Your task to perform on an android device: check android version Image 0: 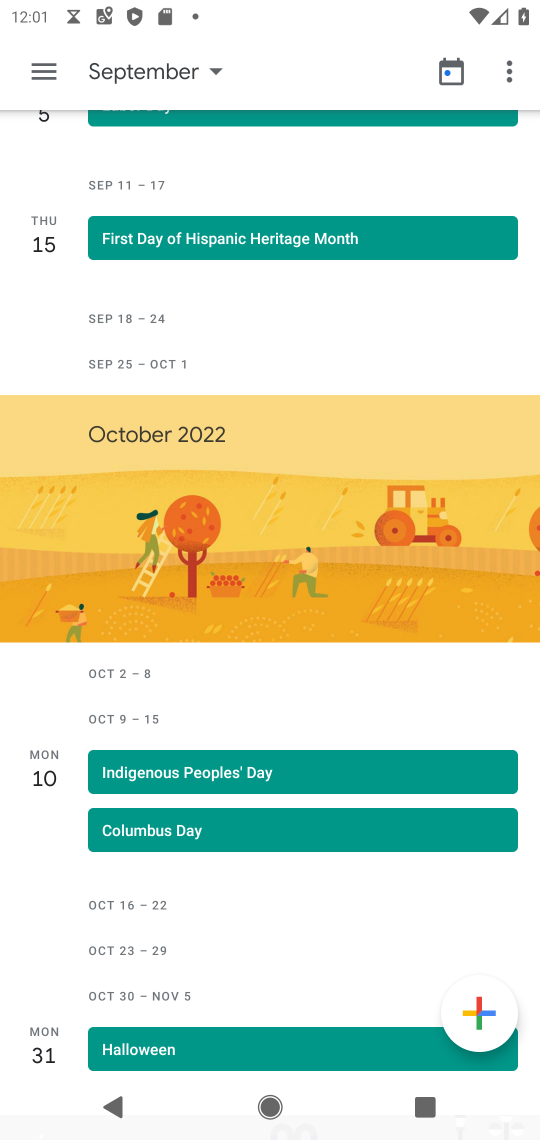
Step 0: press home button
Your task to perform on an android device: check android version Image 1: 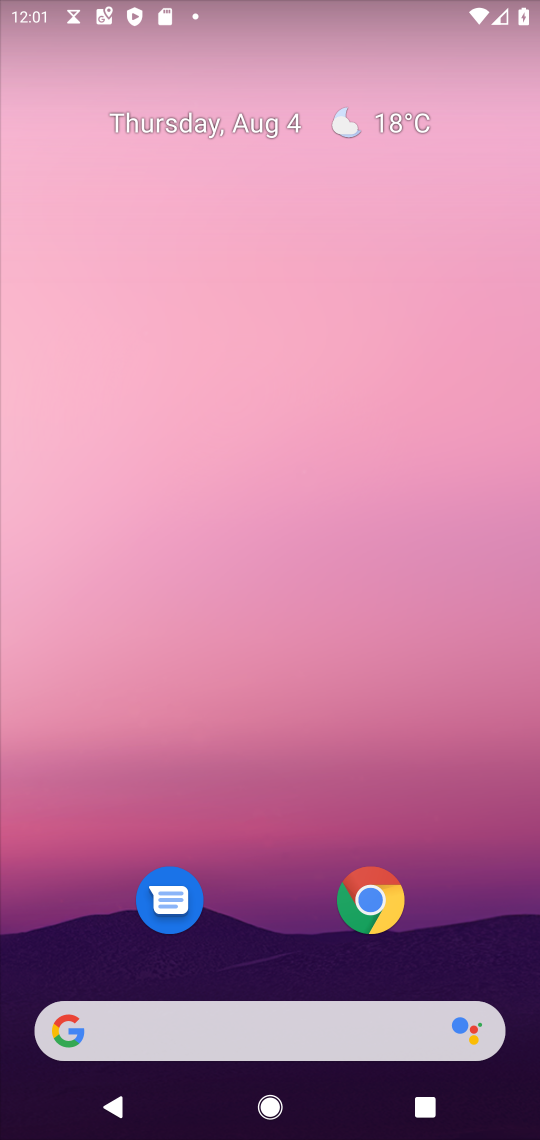
Step 1: drag from (247, 809) to (530, 153)
Your task to perform on an android device: check android version Image 2: 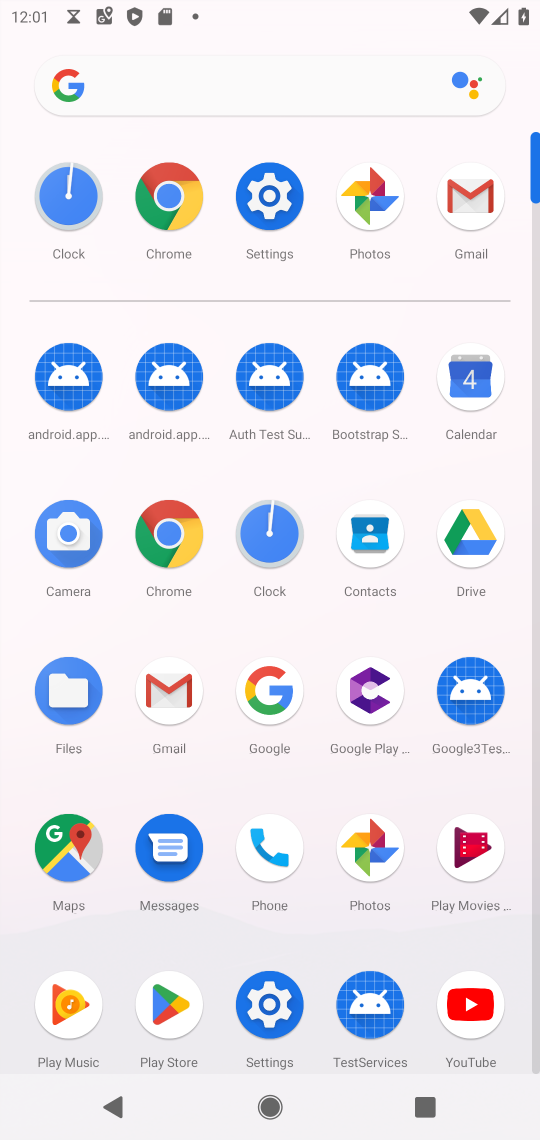
Step 2: click (258, 181)
Your task to perform on an android device: check android version Image 3: 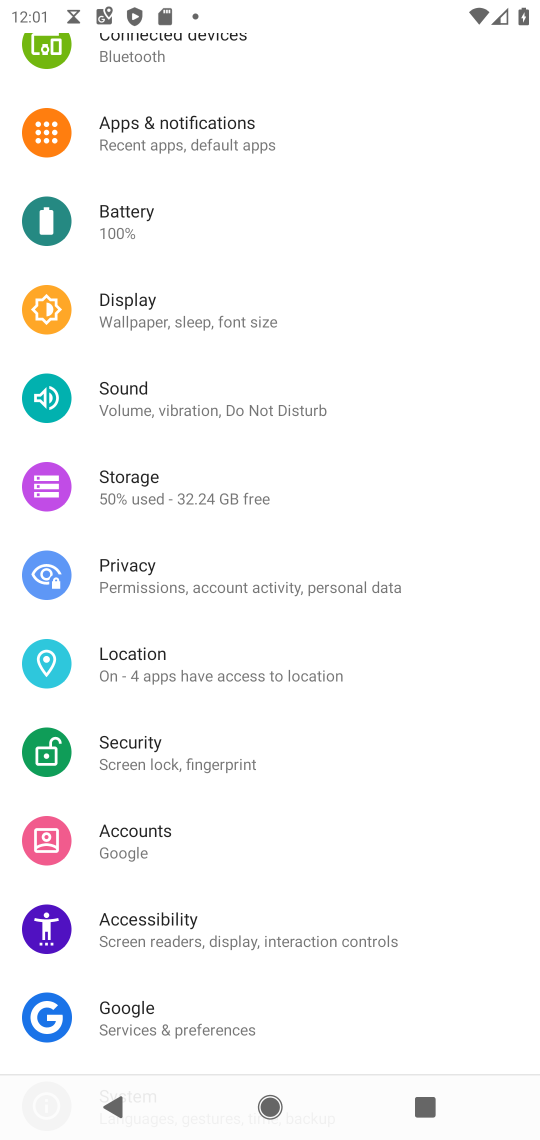
Step 3: drag from (323, 76) to (395, 1012)
Your task to perform on an android device: check android version Image 4: 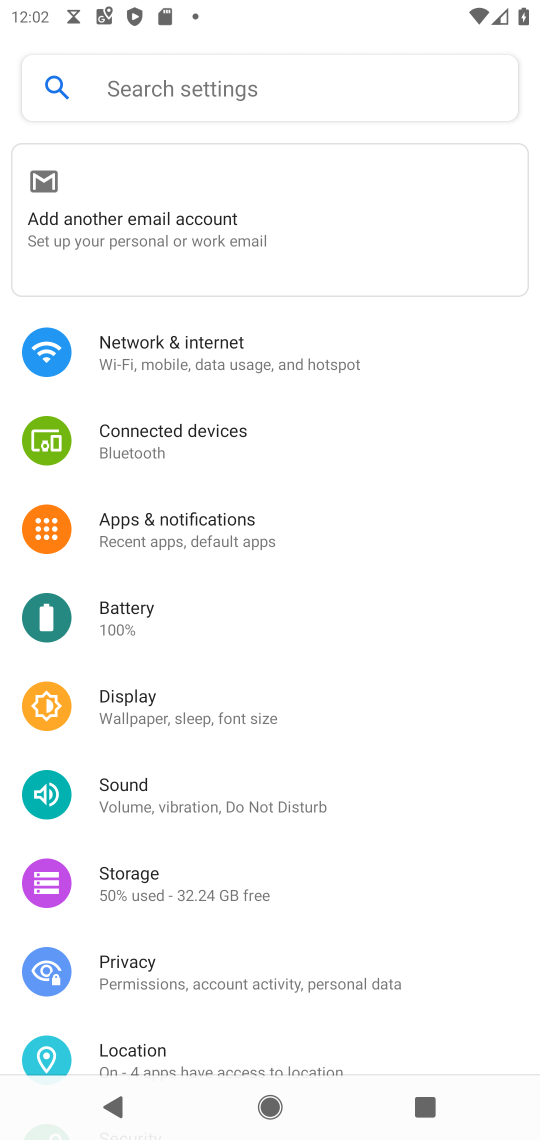
Step 4: drag from (237, 1050) to (323, 92)
Your task to perform on an android device: check android version Image 5: 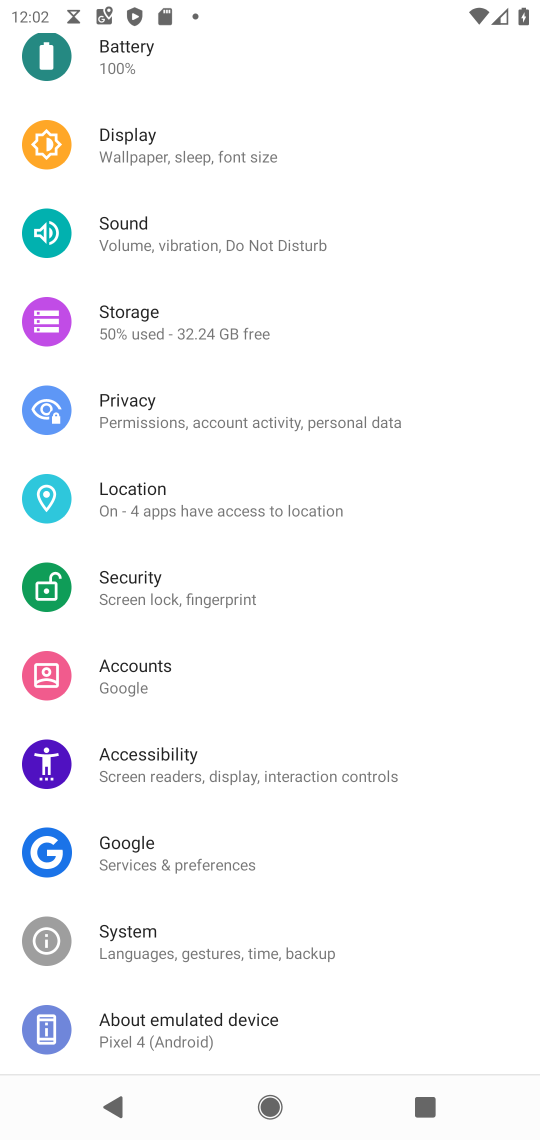
Step 5: click (147, 1003)
Your task to perform on an android device: check android version Image 6: 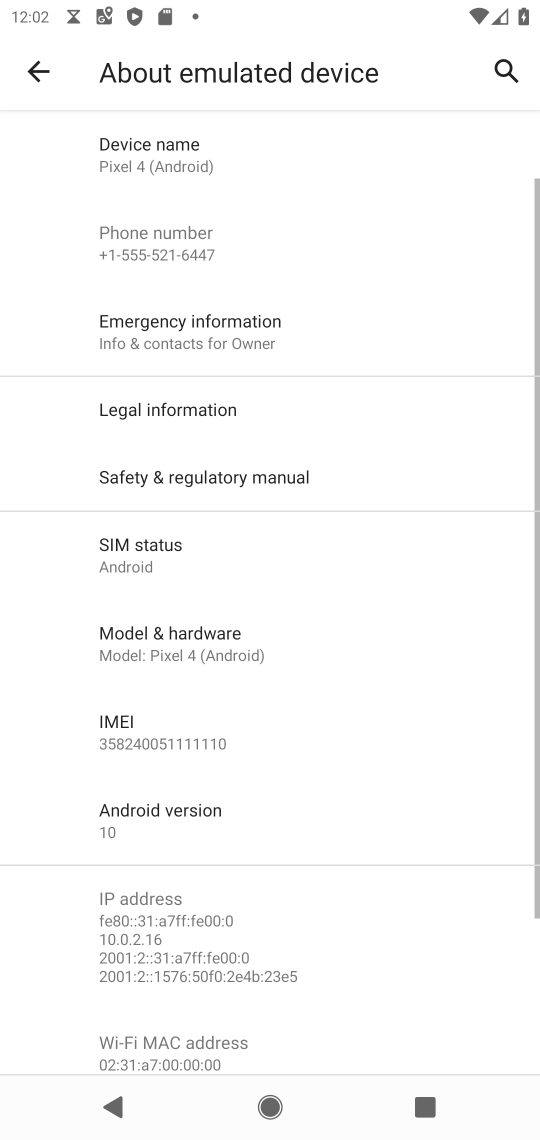
Step 6: task complete